Your task to perform on an android device: Open Maps and search for coffee Image 0: 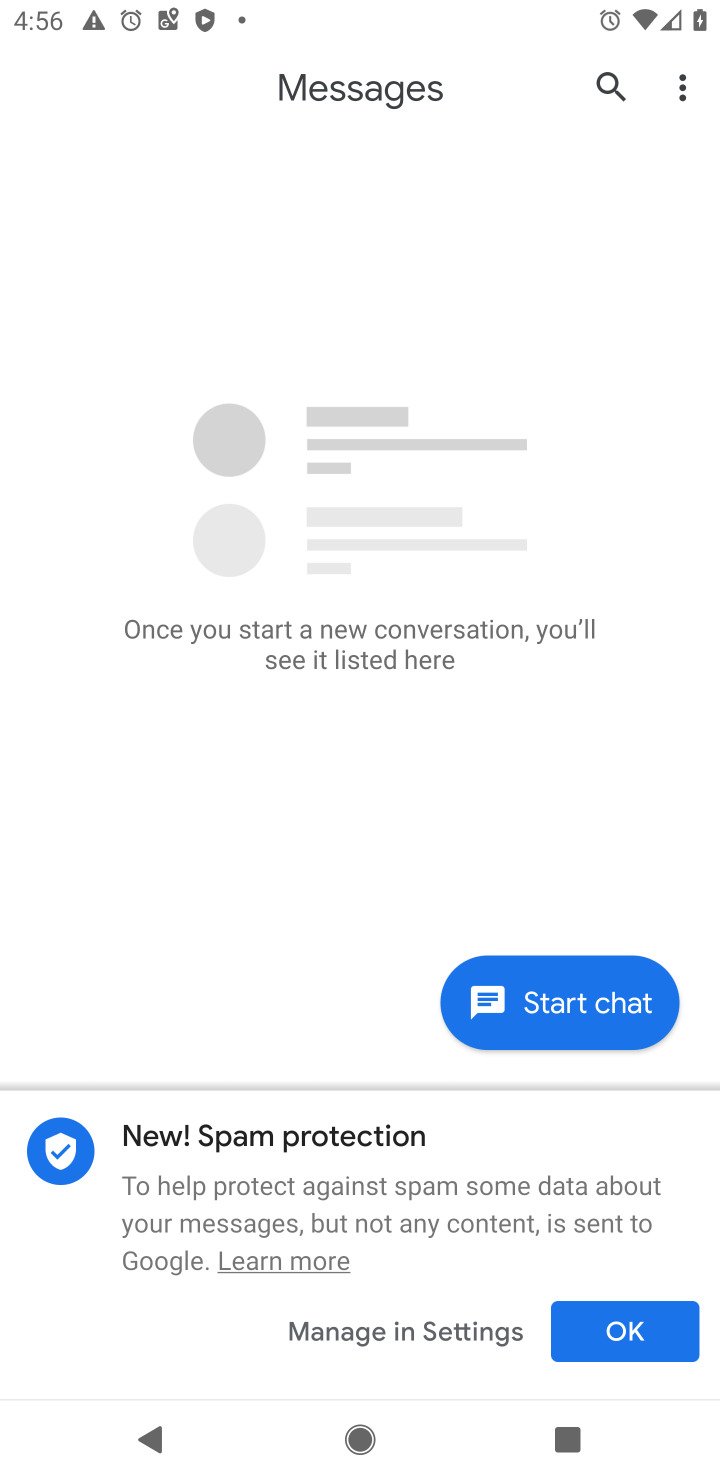
Step 0: press home button
Your task to perform on an android device: Open Maps and search for coffee Image 1: 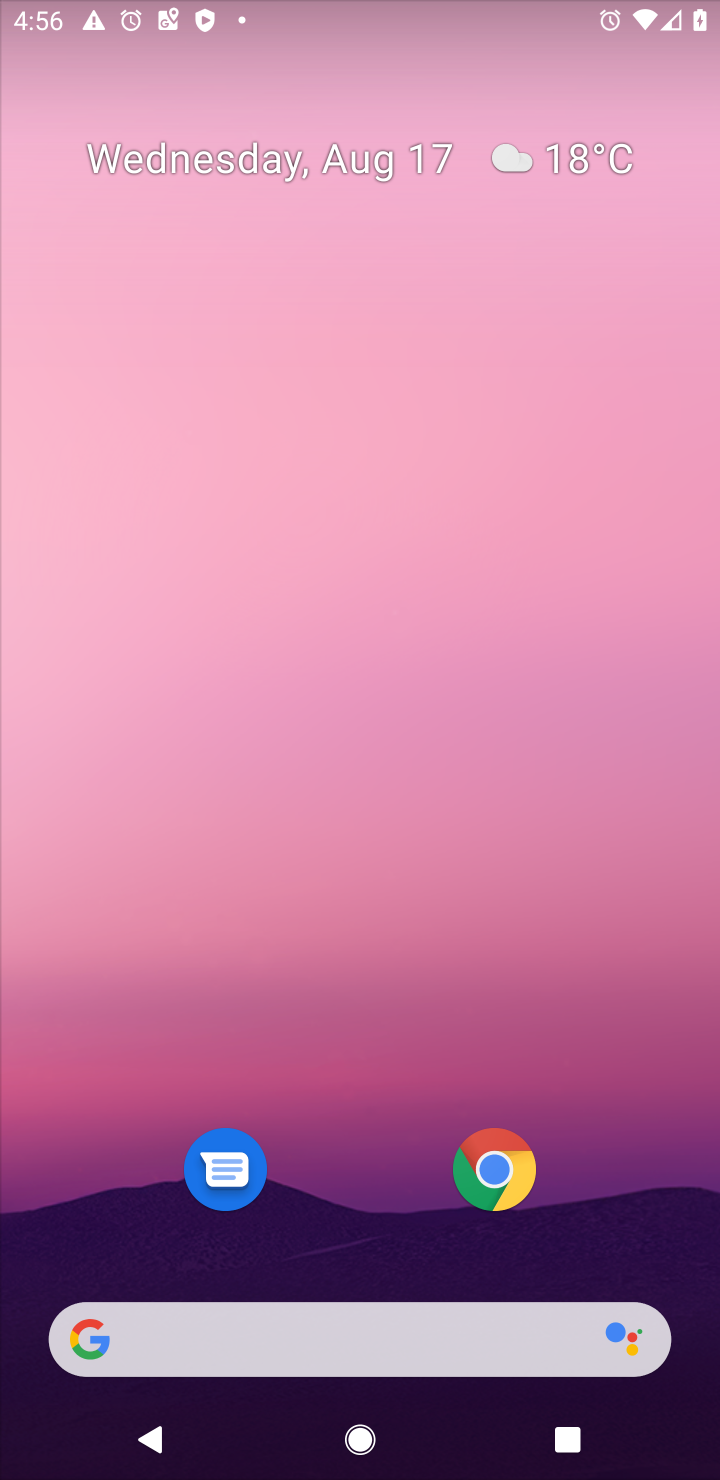
Step 1: drag from (384, 1220) to (410, 388)
Your task to perform on an android device: Open Maps and search for coffee Image 2: 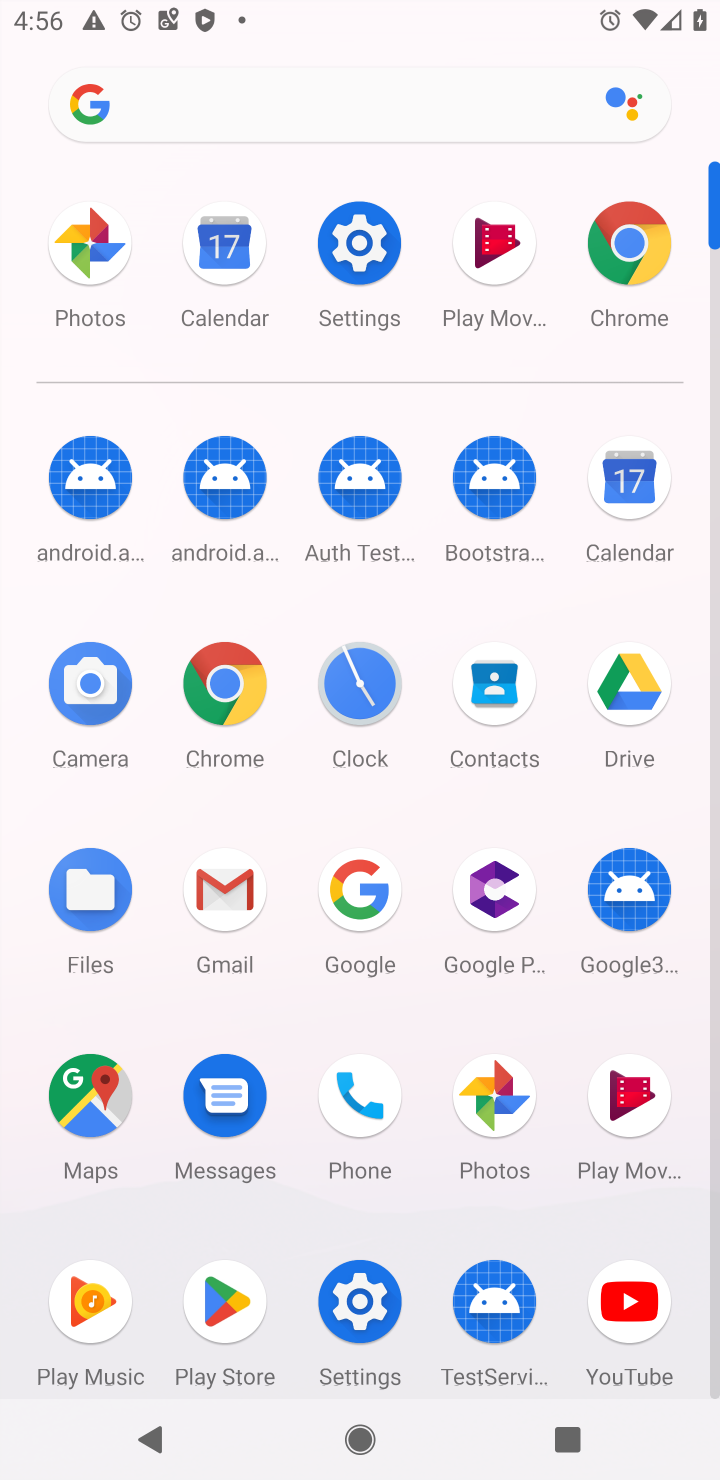
Step 2: drag from (280, 990) to (327, 257)
Your task to perform on an android device: Open Maps and search for coffee Image 3: 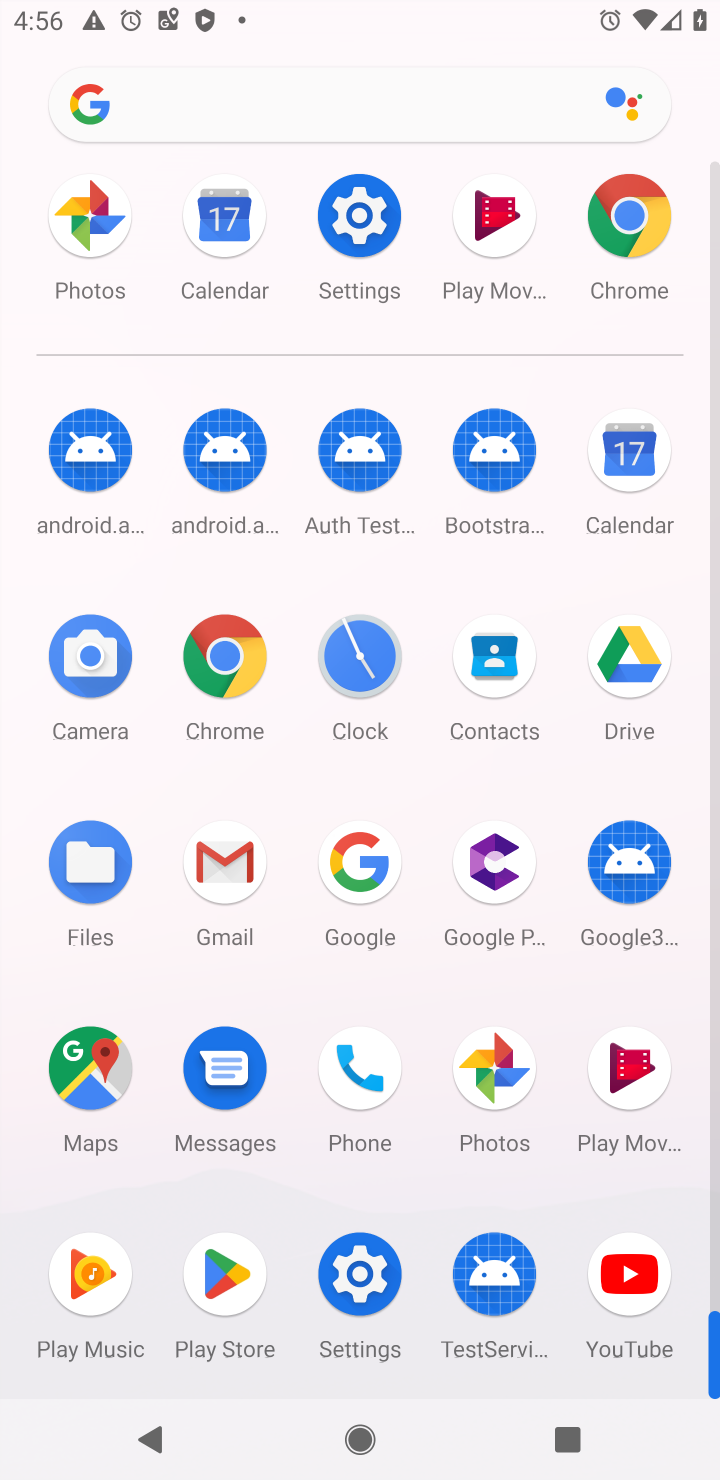
Step 3: click (94, 1048)
Your task to perform on an android device: Open Maps and search for coffee Image 4: 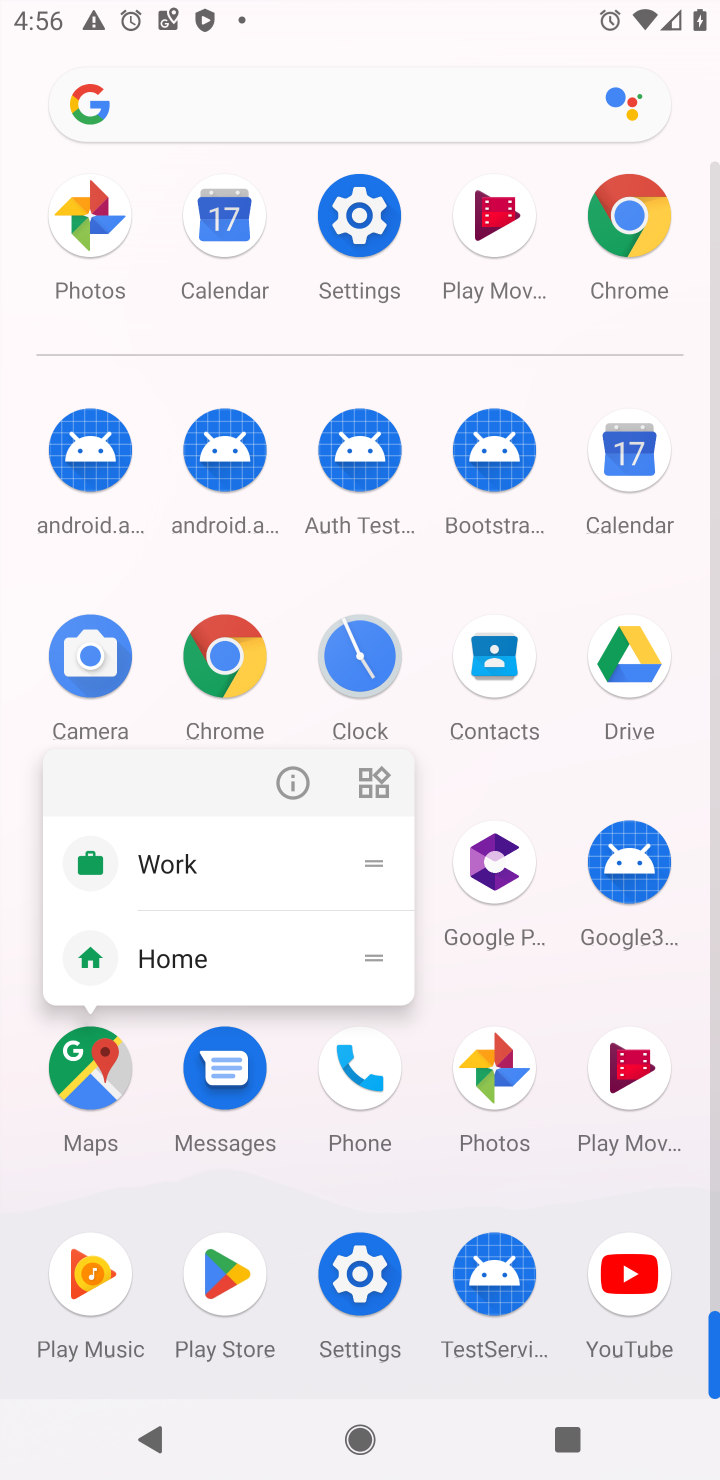
Step 4: click (71, 1063)
Your task to perform on an android device: Open Maps and search for coffee Image 5: 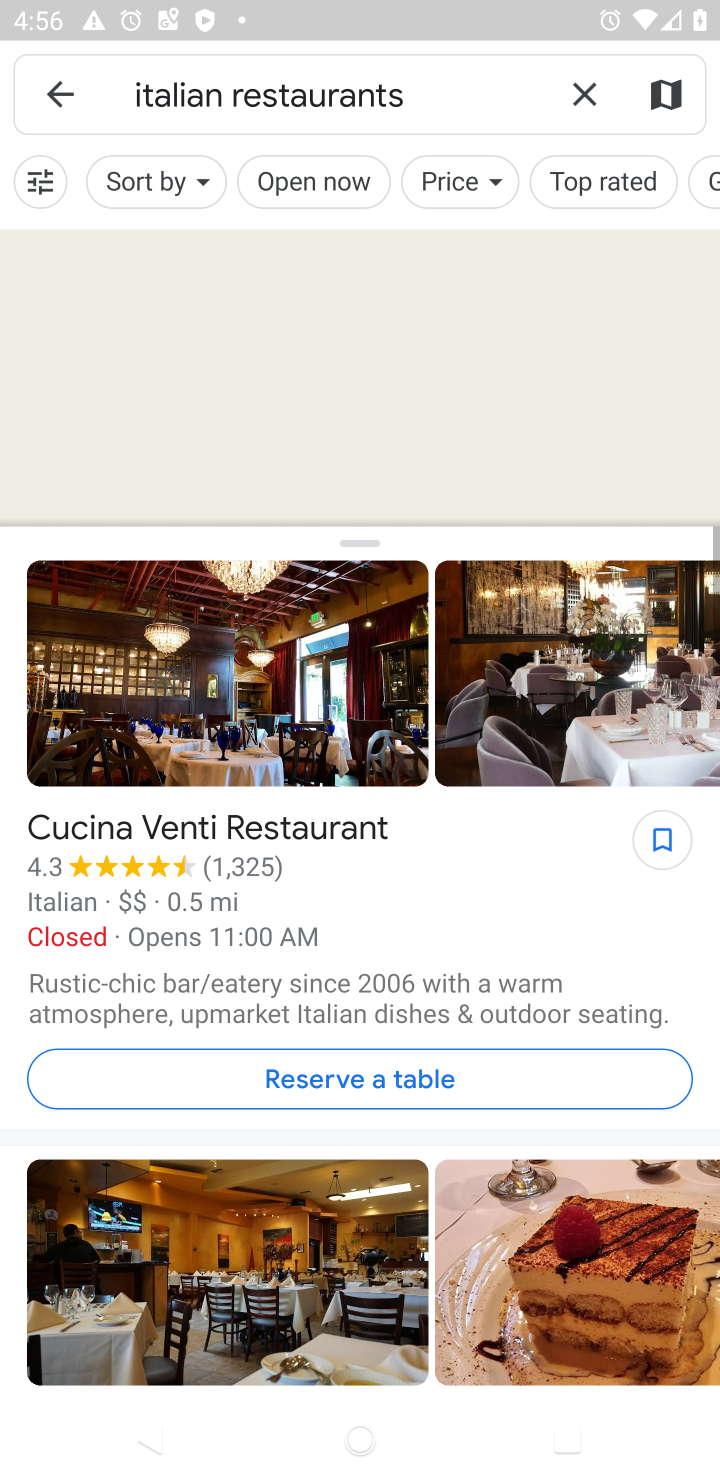
Step 5: click (585, 102)
Your task to perform on an android device: Open Maps and search for coffee Image 6: 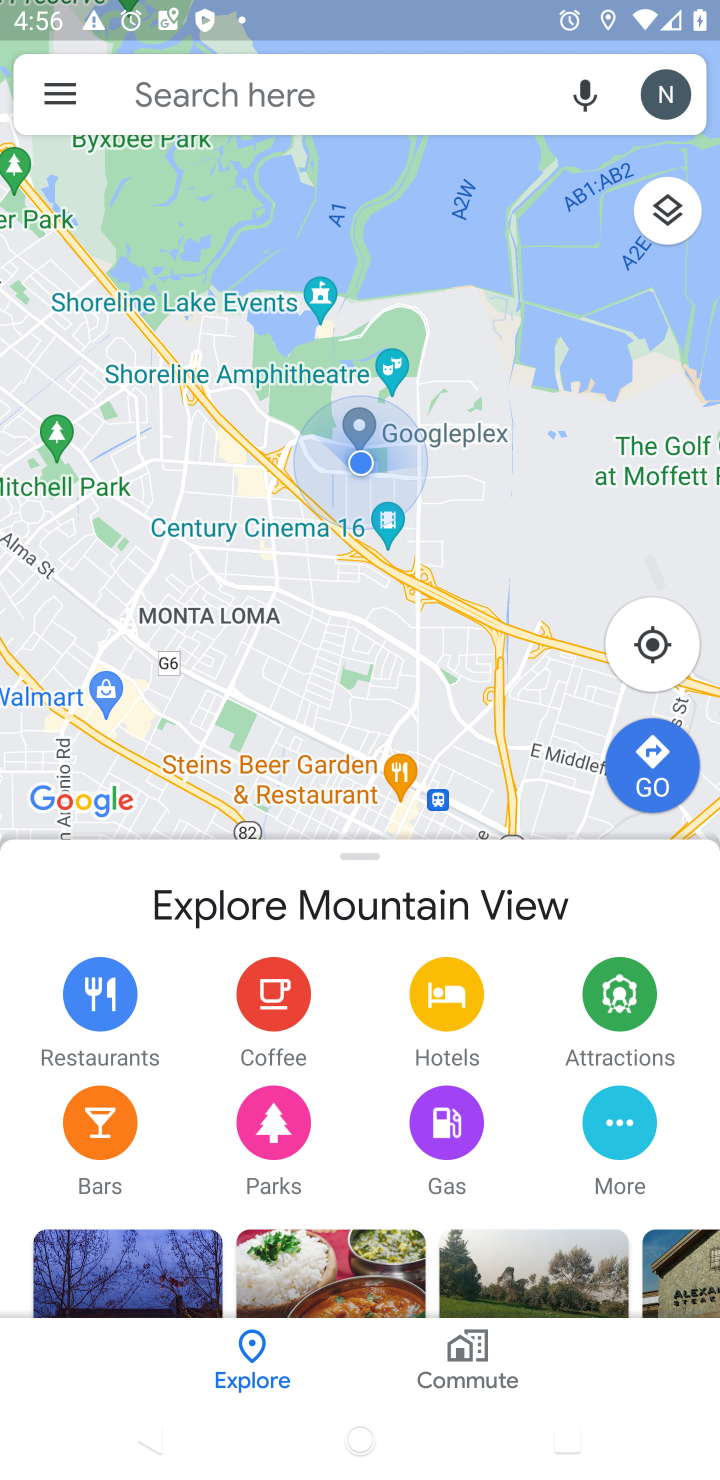
Step 6: click (459, 104)
Your task to perform on an android device: Open Maps and search for coffee Image 7: 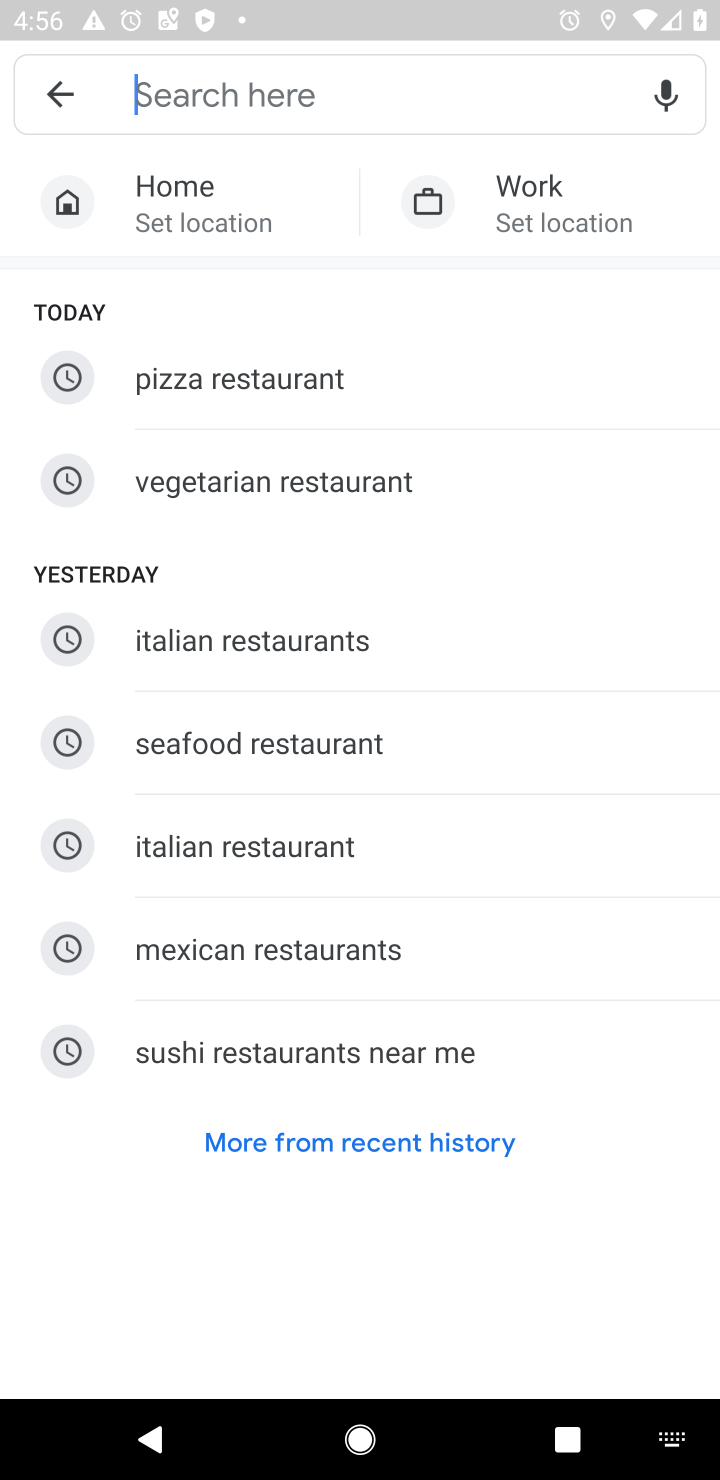
Step 7: type "coffee"
Your task to perform on an android device: Open Maps and search for coffee Image 8: 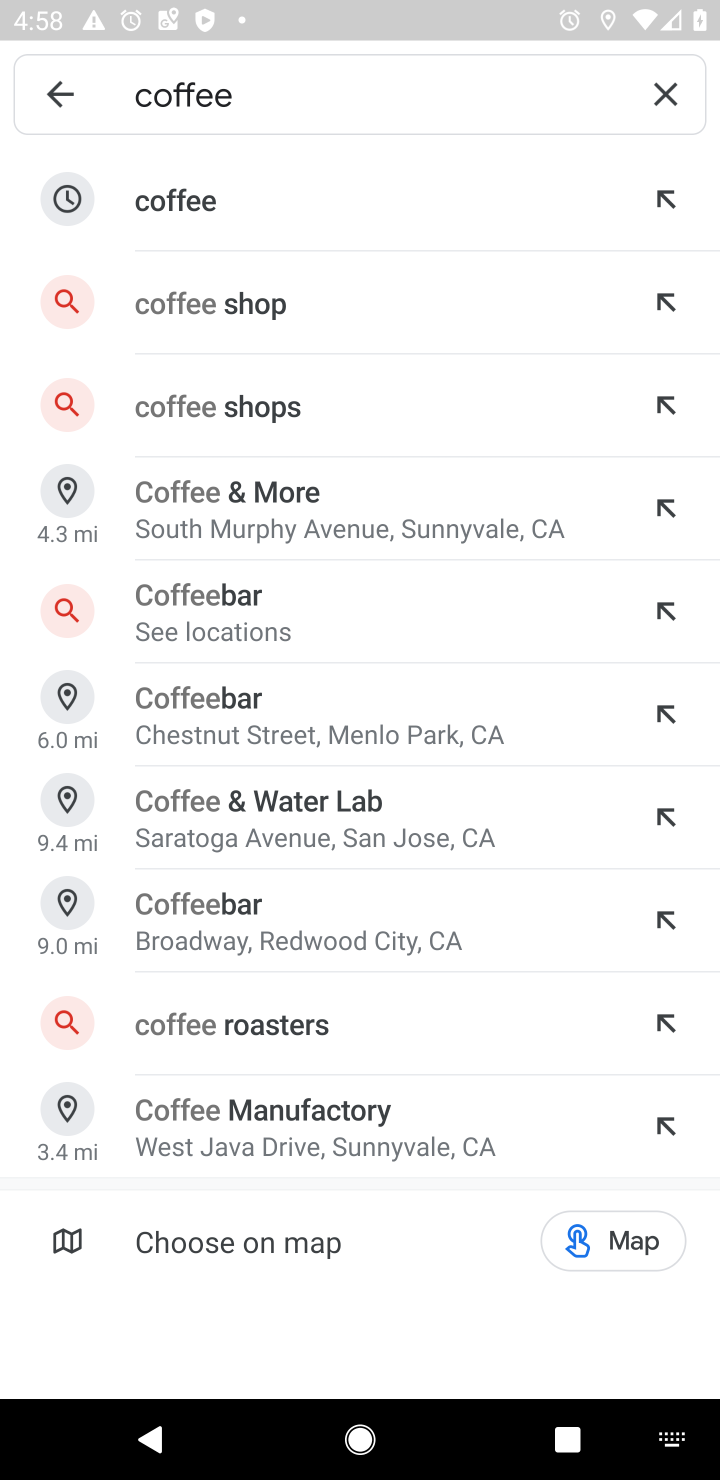
Step 8: click (244, 191)
Your task to perform on an android device: Open Maps and search for coffee Image 9: 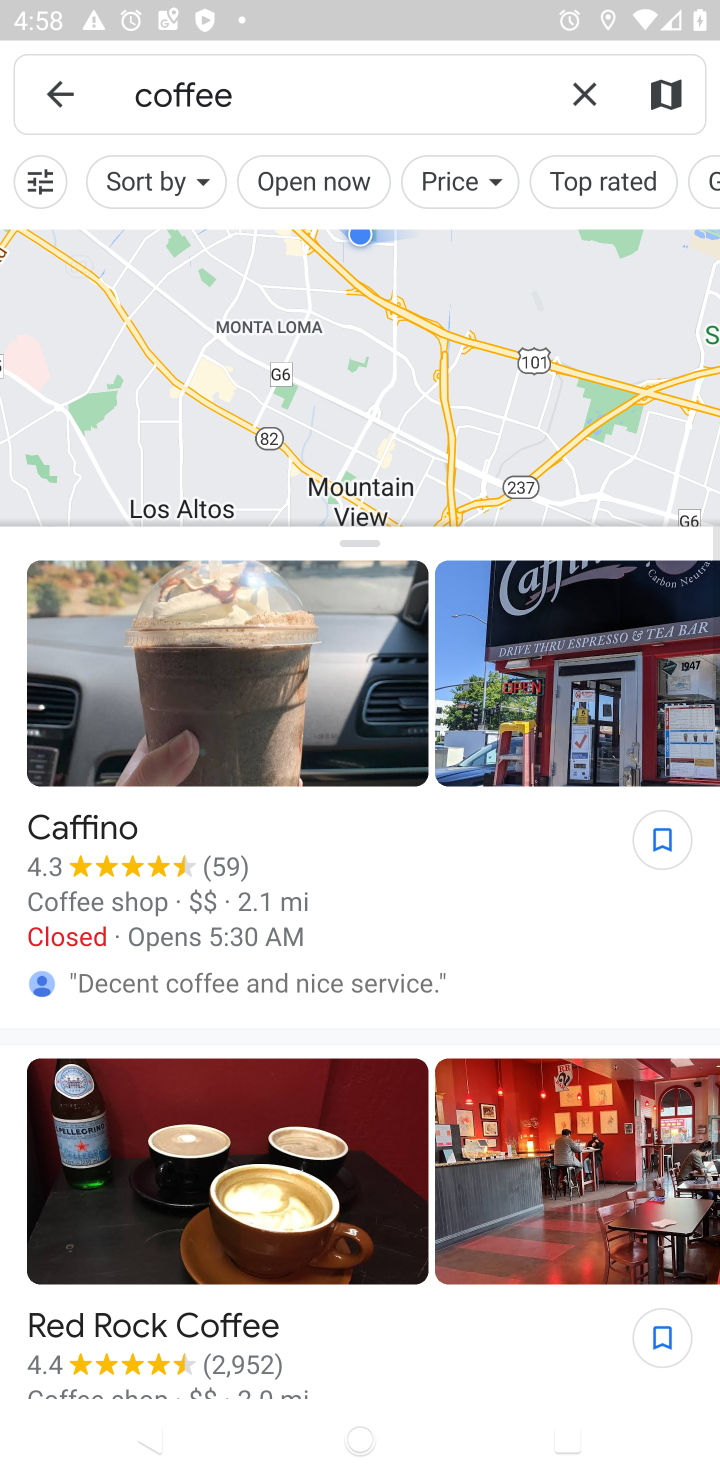
Step 9: task complete